Your task to perform on an android device: turn off notifications settings in the gmail app Image 0: 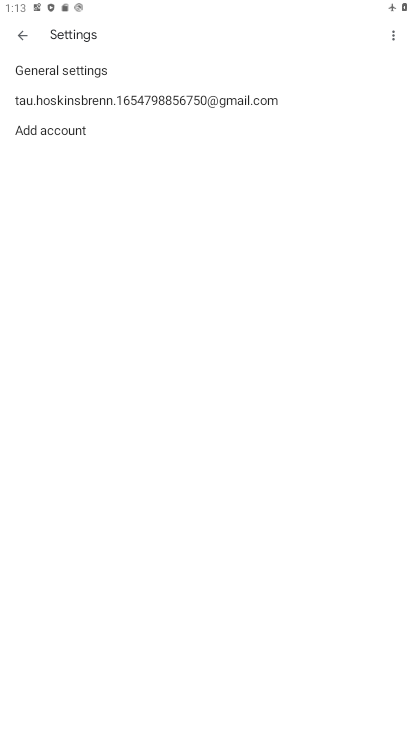
Step 0: press home button
Your task to perform on an android device: turn off notifications settings in the gmail app Image 1: 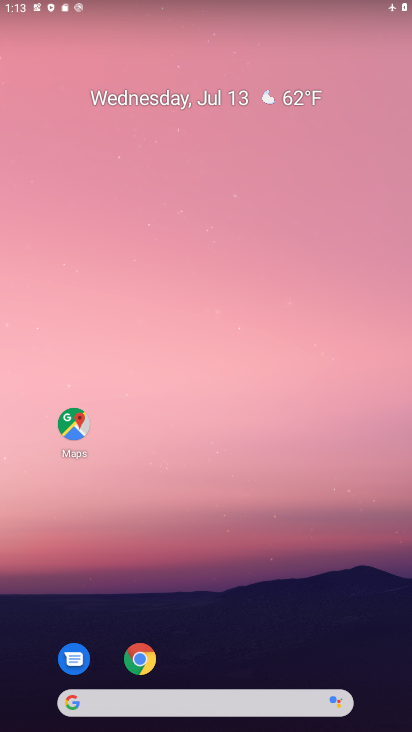
Step 1: click (193, 723)
Your task to perform on an android device: turn off notifications settings in the gmail app Image 2: 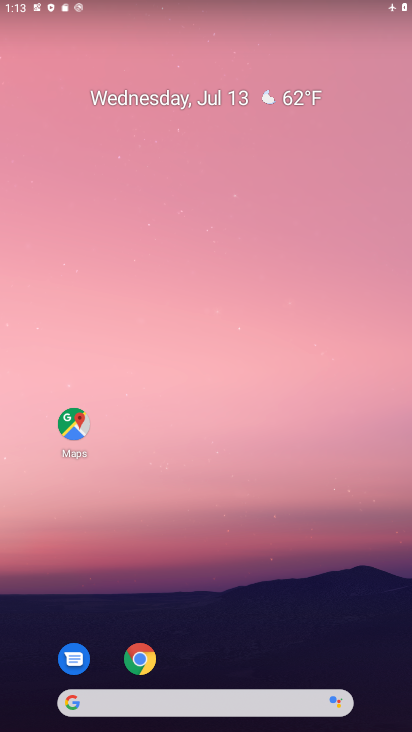
Step 2: drag from (193, 452) to (193, 140)
Your task to perform on an android device: turn off notifications settings in the gmail app Image 3: 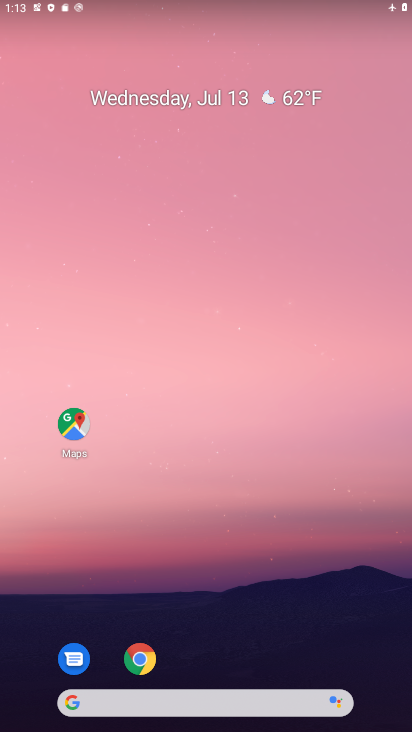
Step 3: drag from (275, 728) to (261, 156)
Your task to perform on an android device: turn off notifications settings in the gmail app Image 4: 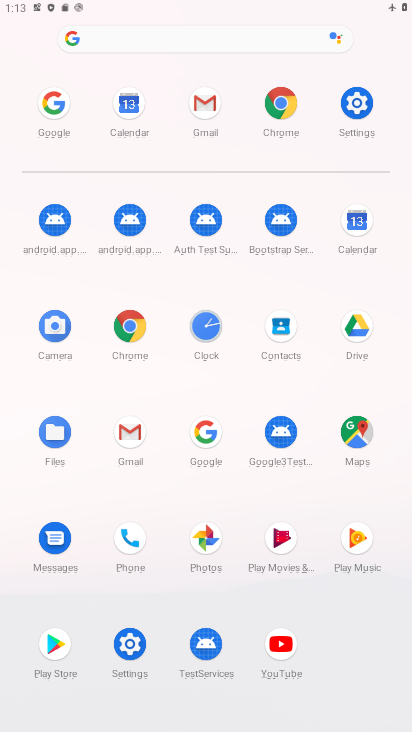
Step 4: click (129, 433)
Your task to perform on an android device: turn off notifications settings in the gmail app Image 5: 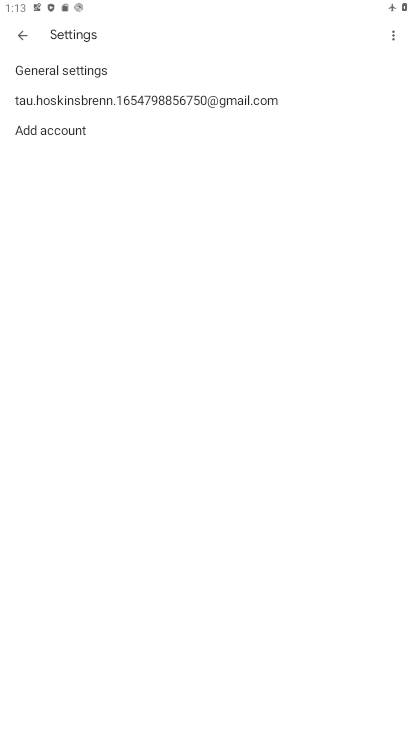
Step 5: click (90, 98)
Your task to perform on an android device: turn off notifications settings in the gmail app Image 6: 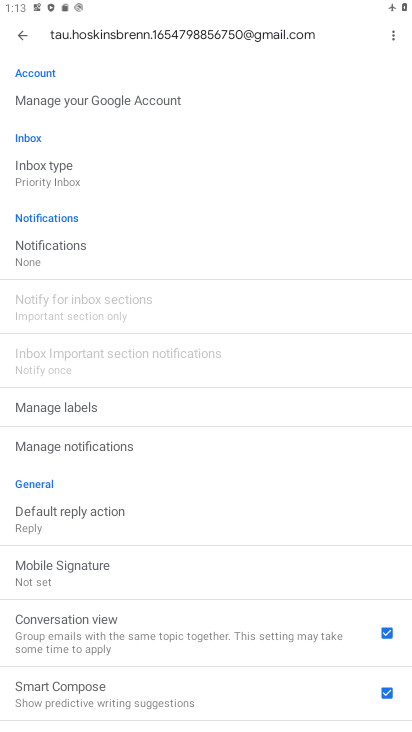
Step 6: task complete